Your task to perform on an android device: turn on bluetooth scan Image 0: 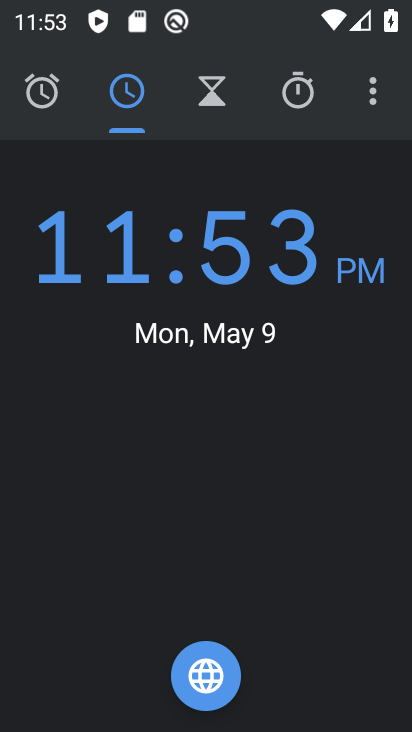
Step 0: press home button
Your task to perform on an android device: turn on bluetooth scan Image 1: 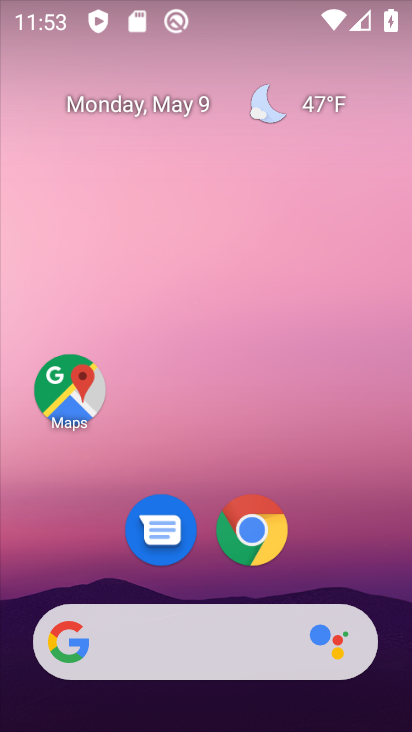
Step 1: drag from (364, 528) to (381, 86)
Your task to perform on an android device: turn on bluetooth scan Image 2: 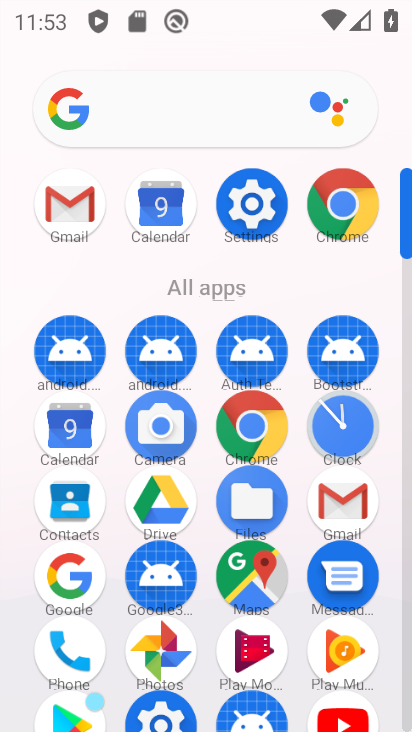
Step 2: click (261, 201)
Your task to perform on an android device: turn on bluetooth scan Image 3: 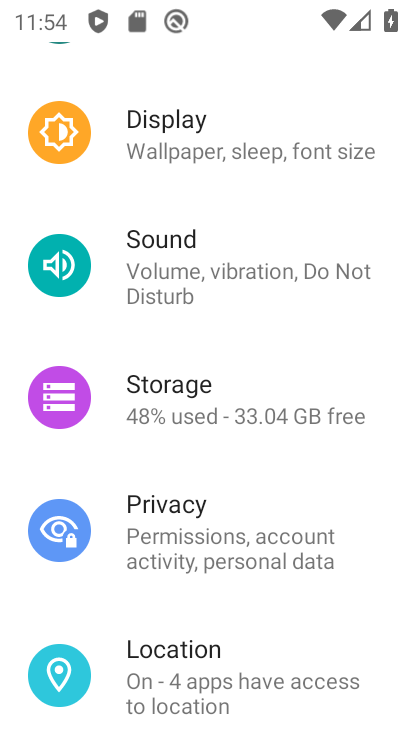
Step 3: drag from (264, 477) to (263, 217)
Your task to perform on an android device: turn on bluetooth scan Image 4: 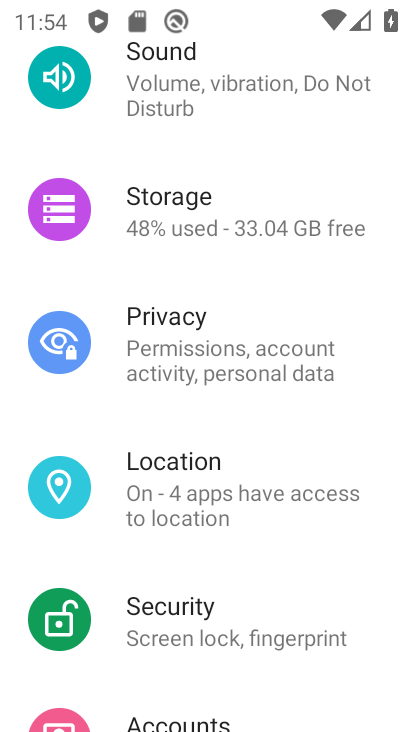
Step 4: drag from (268, 498) to (254, 221)
Your task to perform on an android device: turn on bluetooth scan Image 5: 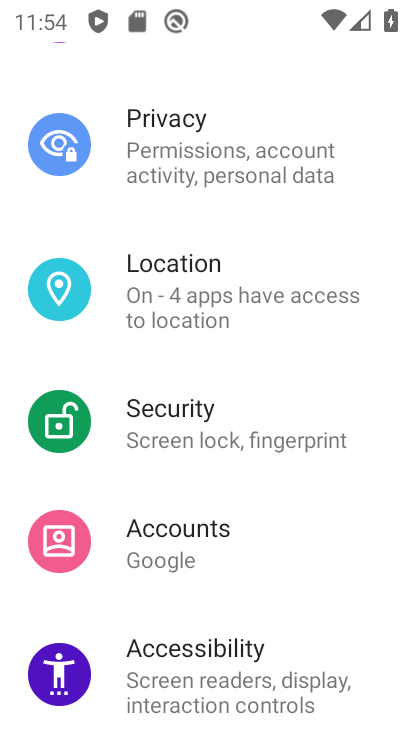
Step 5: click (234, 271)
Your task to perform on an android device: turn on bluetooth scan Image 6: 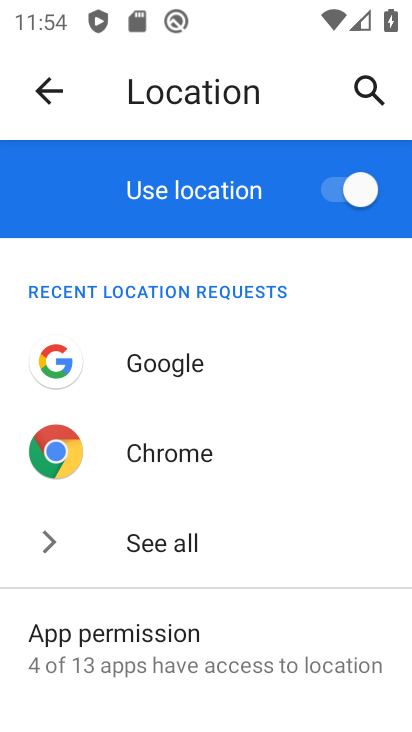
Step 6: drag from (265, 602) to (271, 350)
Your task to perform on an android device: turn on bluetooth scan Image 7: 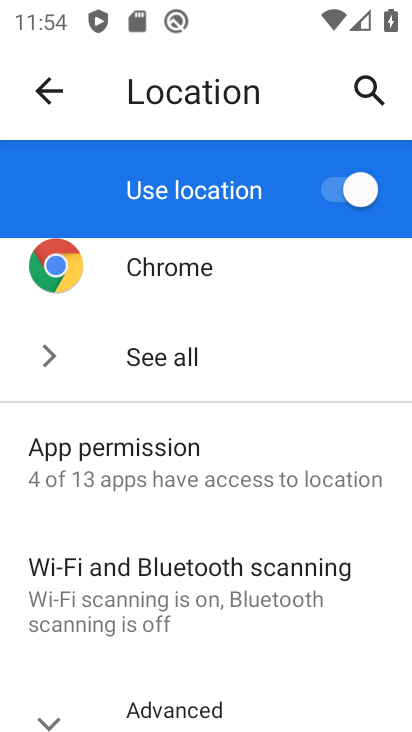
Step 7: click (244, 567)
Your task to perform on an android device: turn on bluetooth scan Image 8: 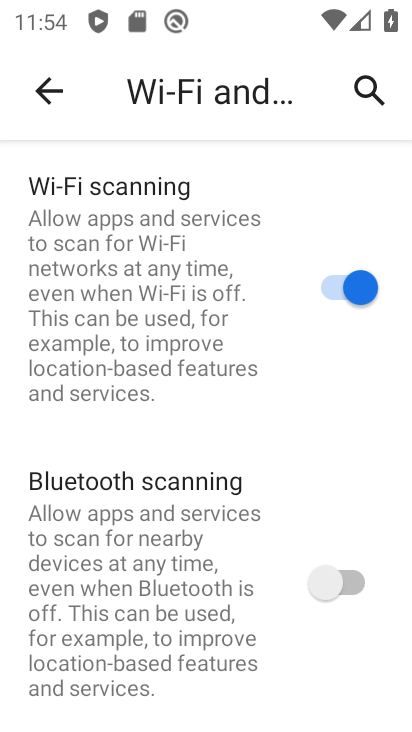
Step 8: click (354, 575)
Your task to perform on an android device: turn on bluetooth scan Image 9: 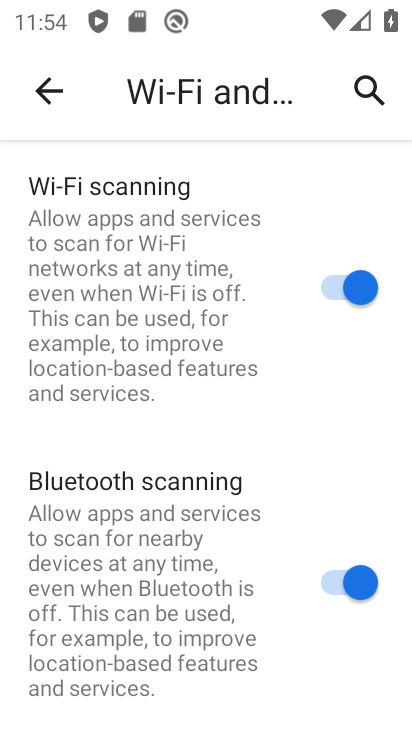
Step 9: task complete